Your task to perform on an android device: toggle improve location accuracy Image 0: 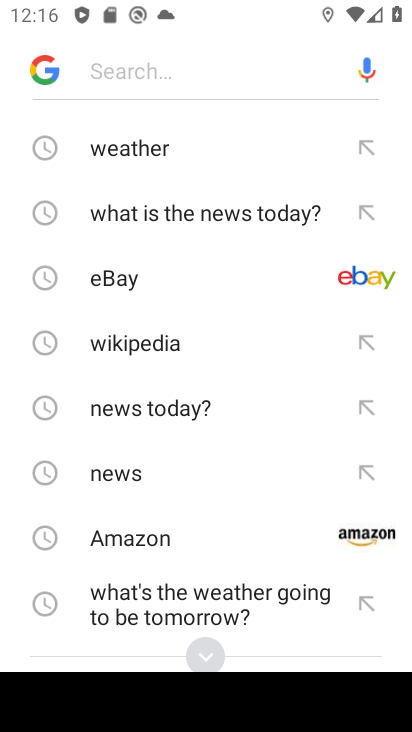
Step 0: press home button
Your task to perform on an android device: toggle improve location accuracy Image 1: 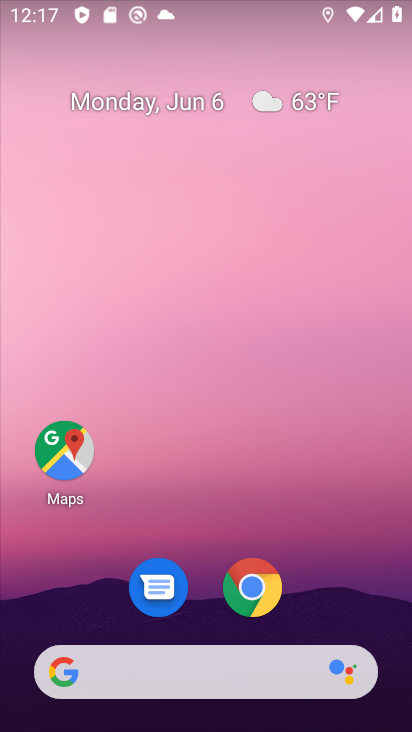
Step 1: drag from (391, 637) to (271, 126)
Your task to perform on an android device: toggle improve location accuracy Image 2: 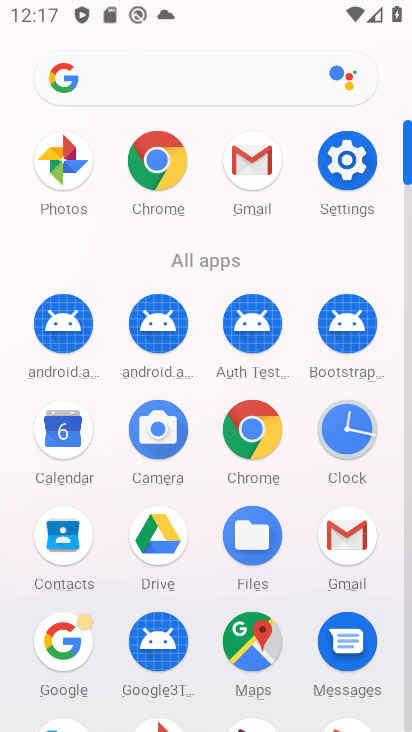
Step 2: click (350, 175)
Your task to perform on an android device: toggle improve location accuracy Image 3: 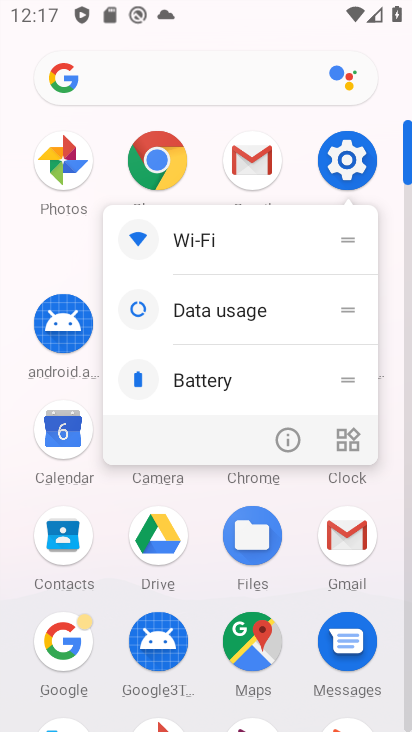
Step 3: click (359, 155)
Your task to perform on an android device: toggle improve location accuracy Image 4: 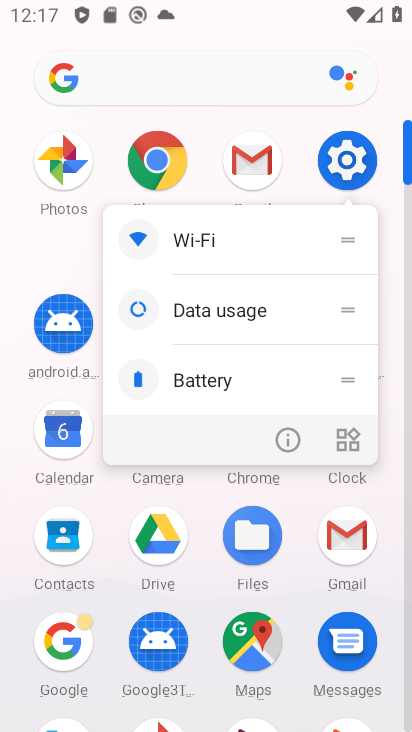
Step 4: click (359, 155)
Your task to perform on an android device: toggle improve location accuracy Image 5: 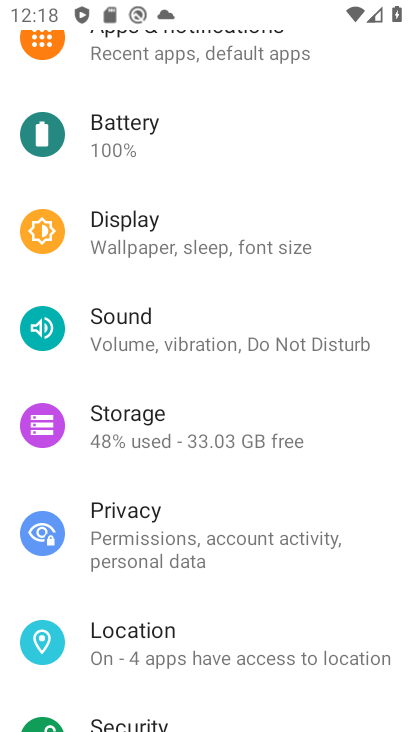
Step 5: click (269, 657)
Your task to perform on an android device: toggle improve location accuracy Image 6: 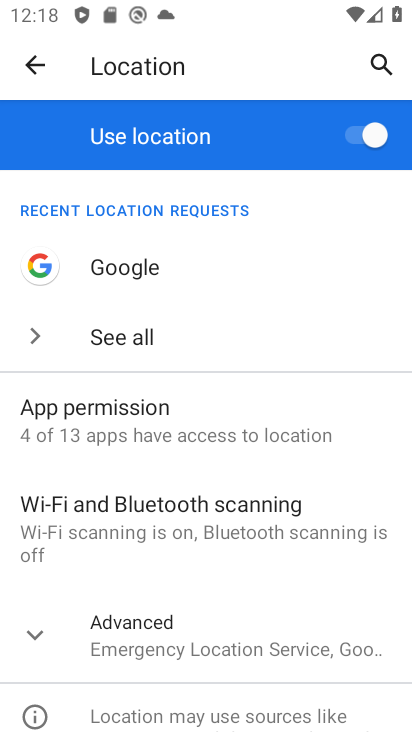
Step 6: drag from (321, 685) to (308, 345)
Your task to perform on an android device: toggle improve location accuracy Image 7: 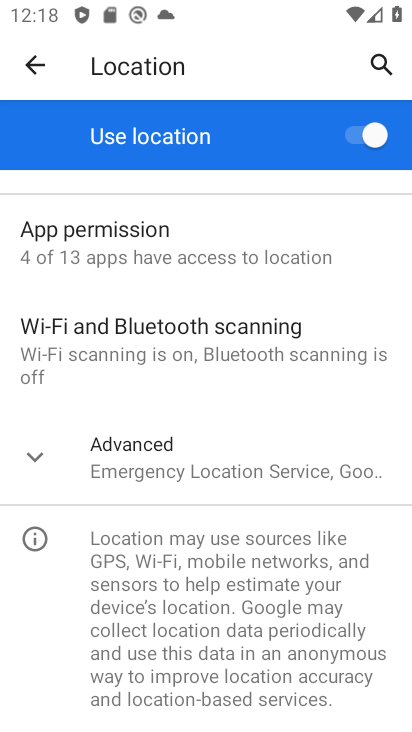
Step 7: click (280, 479)
Your task to perform on an android device: toggle improve location accuracy Image 8: 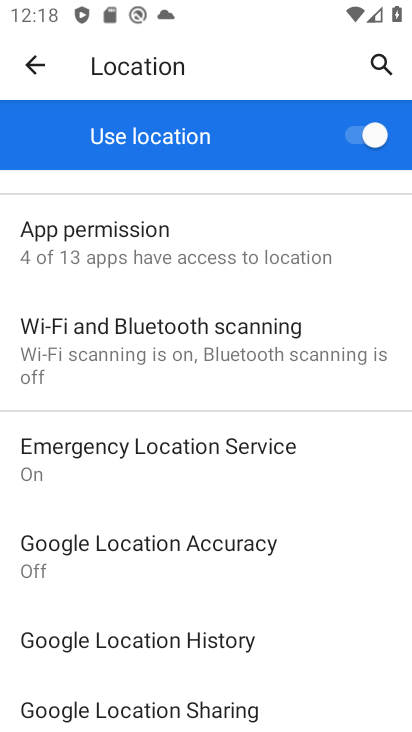
Step 8: click (239, 551)
Your task to perform on an android device: toggle improve location accuracy Image 9: 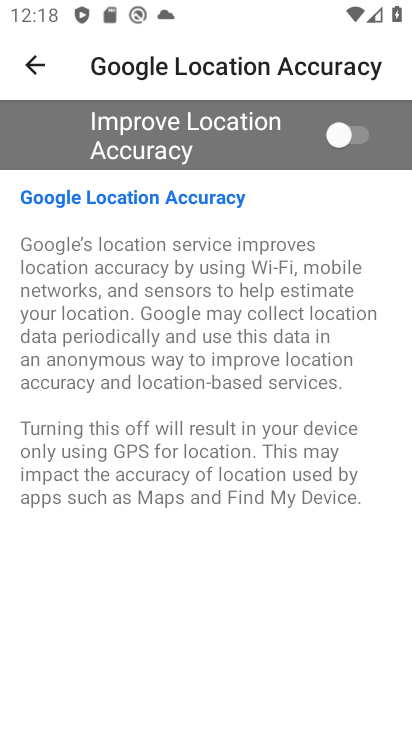
Step 9: click (353, 138)
Your task to perform on an android device: toggle improve location accuracy Image 10: 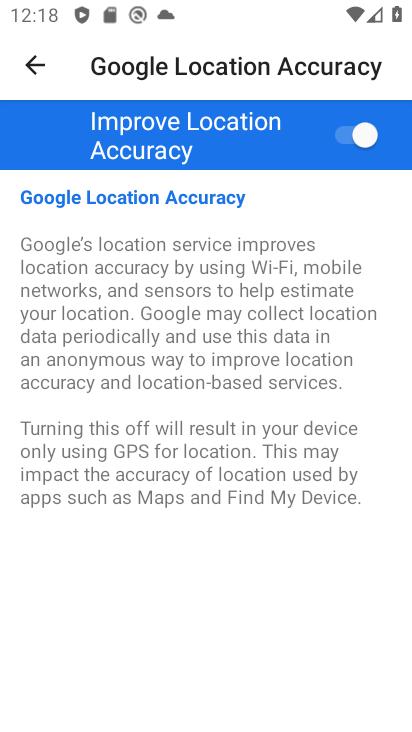
Step 10: task complete